Your task to perform on an android device: Turn on the flashlight Image 0: 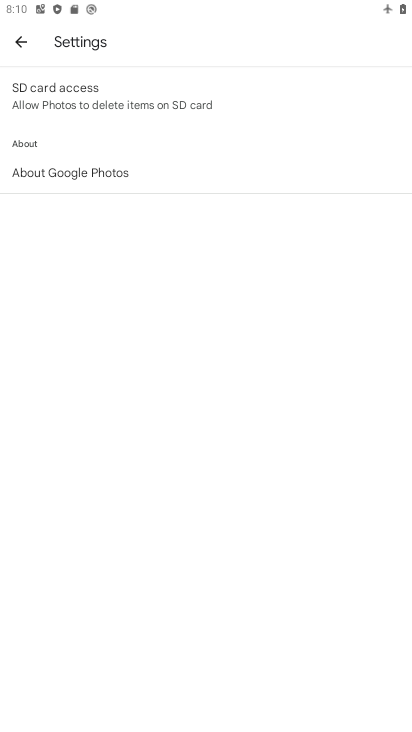
Step 0: press home button
Your task to perform on an android device: Turn on the flashlight Image 1: 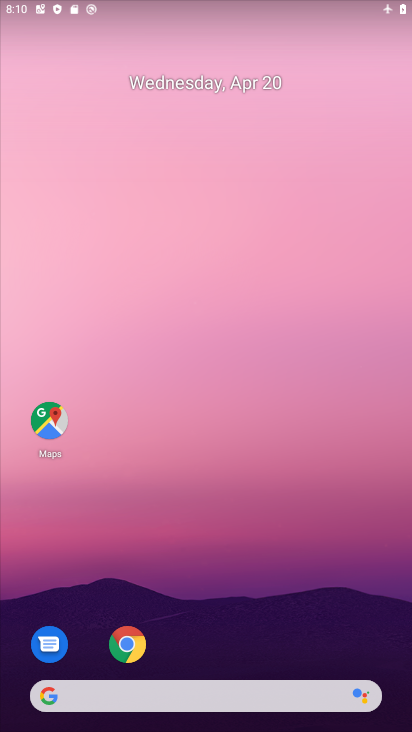
Step 1: drag from (319, 612) to (251, 146)
Your task to perform on an android device: Turn on the flashlight Image 2: 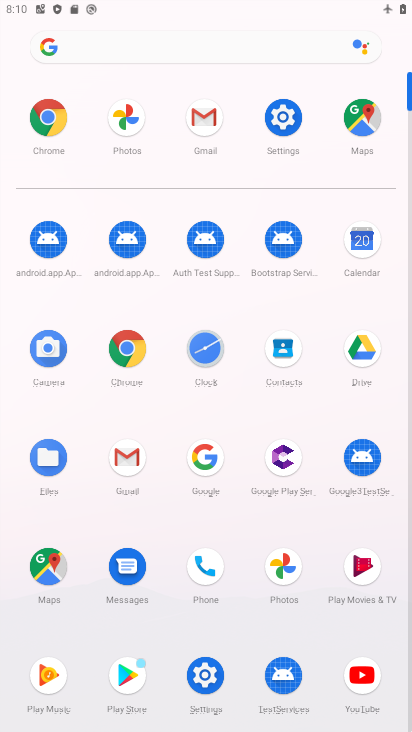
Step 2: click (284, 118)
Your task to perform on an android device: Turn on the flashlight Image 3: 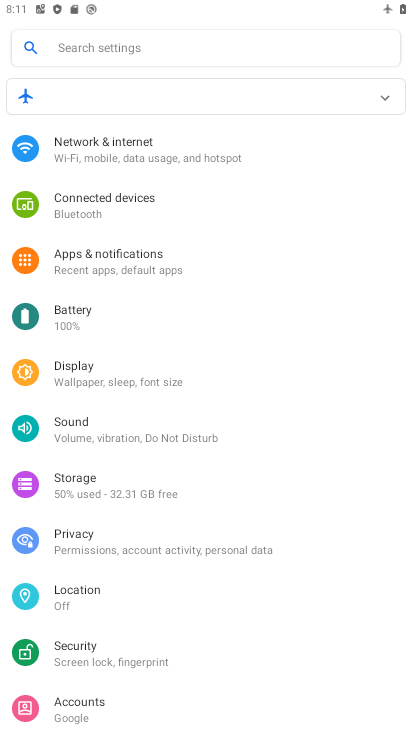
Step 3: task complete